Your task to perform on an android device: Go to Maps Image 0: 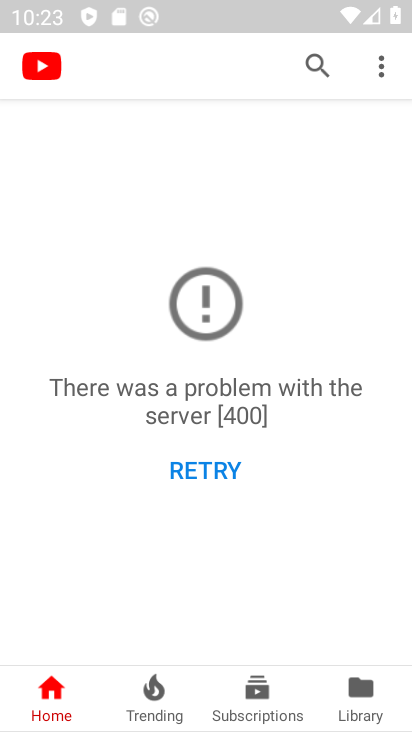
Step 0: task complete